Your task to perform on an android device: check storage Image 0: 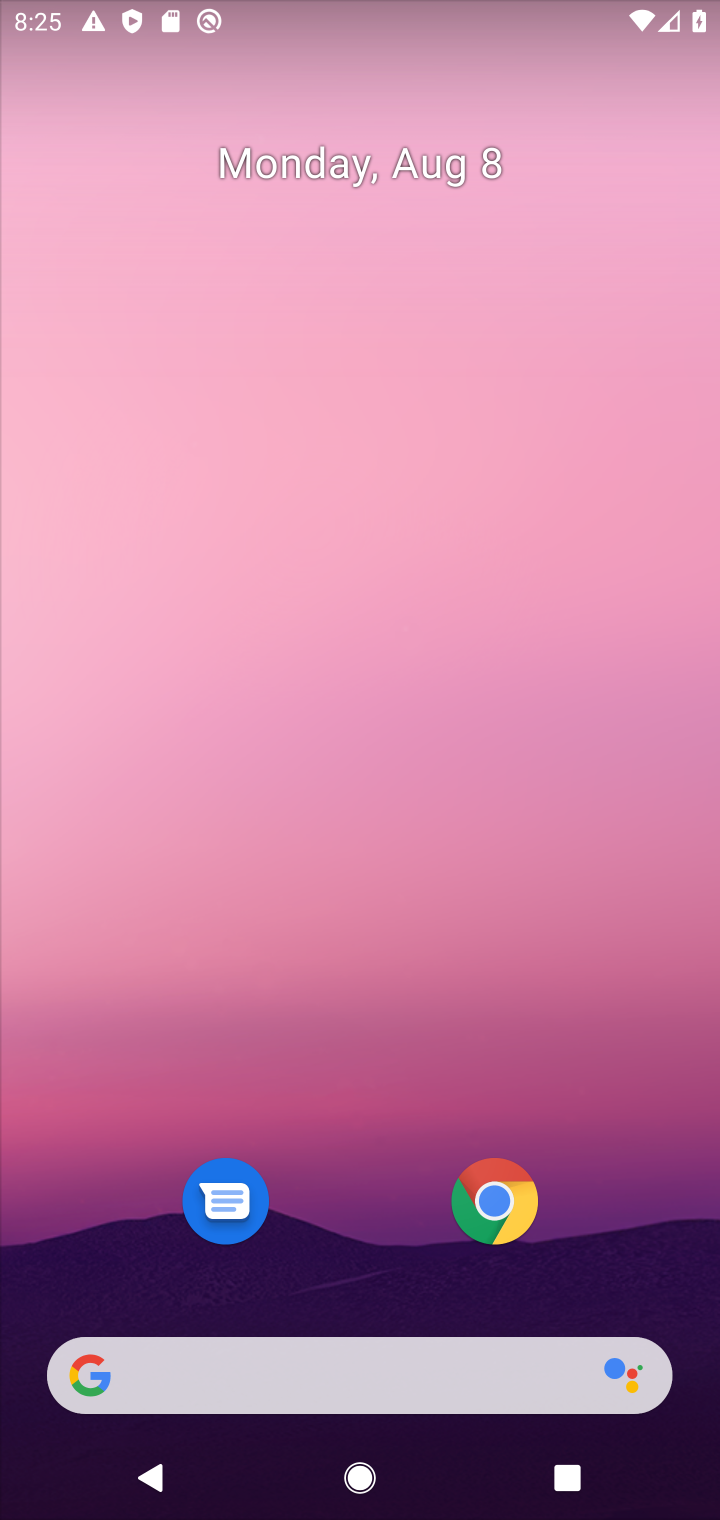
Step 0: press home button
Your task to perform on an android device: check storage Image 1: 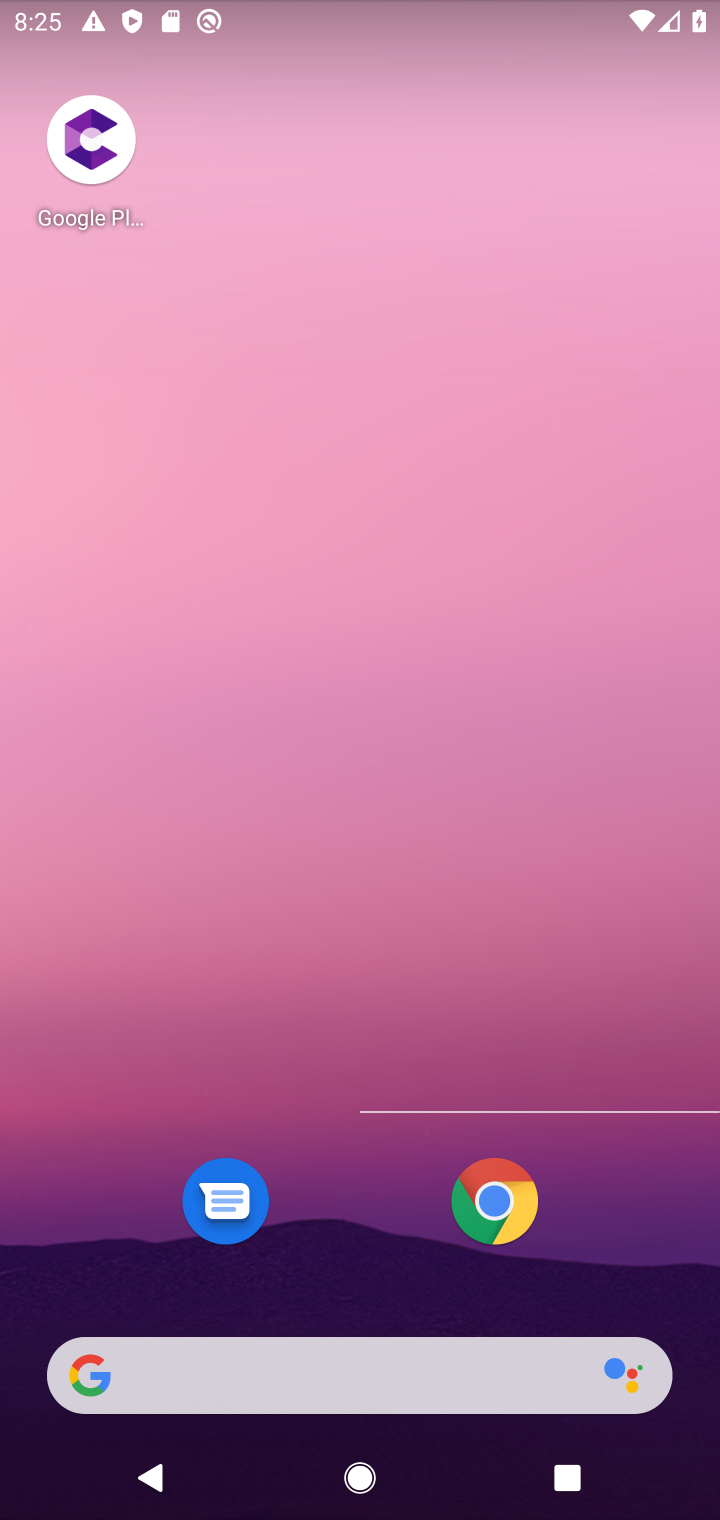
Step 1: drag from (362, 1217) to (440, 369)
Your task to perform on an android device: check storage Image 2: 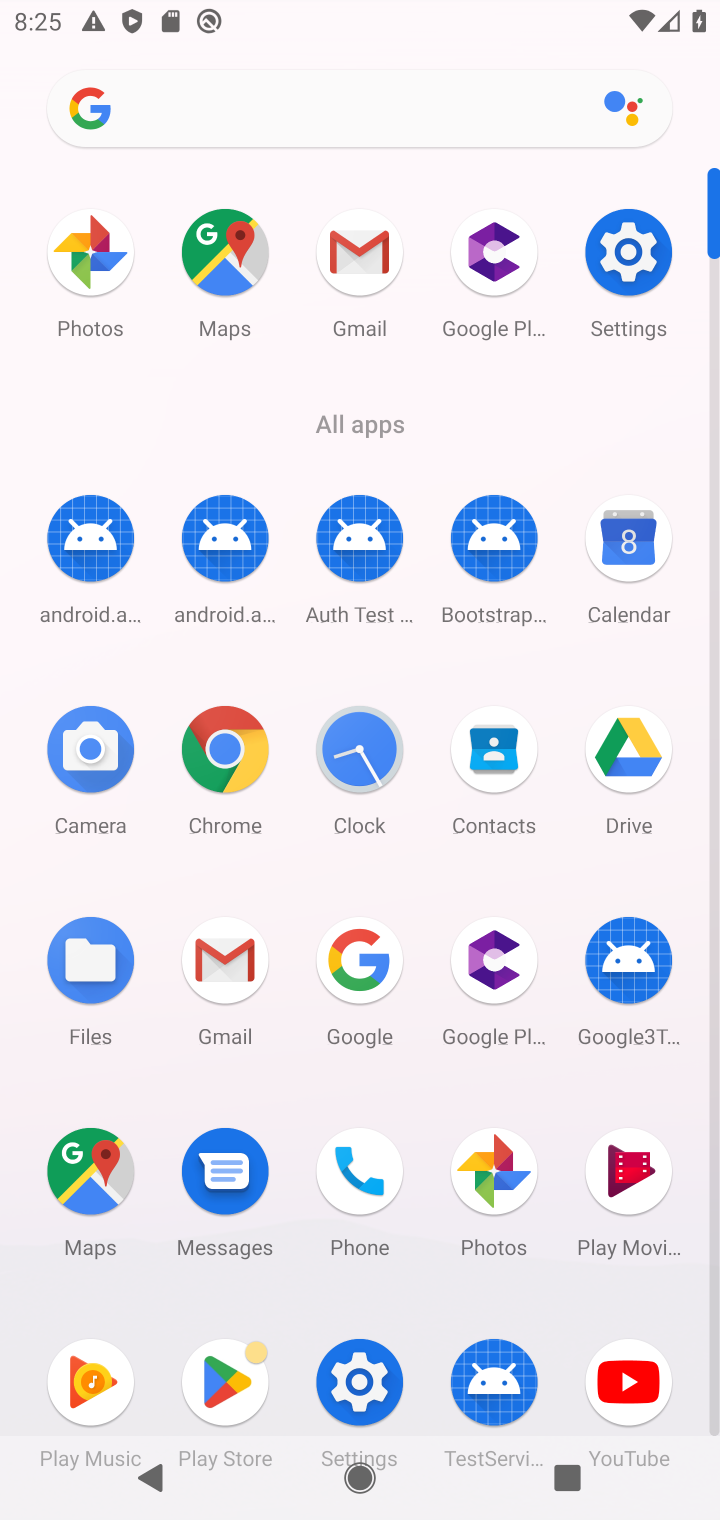
Step 2: click (628, 260)
Your task to perform on an android device: check storage Image 3: 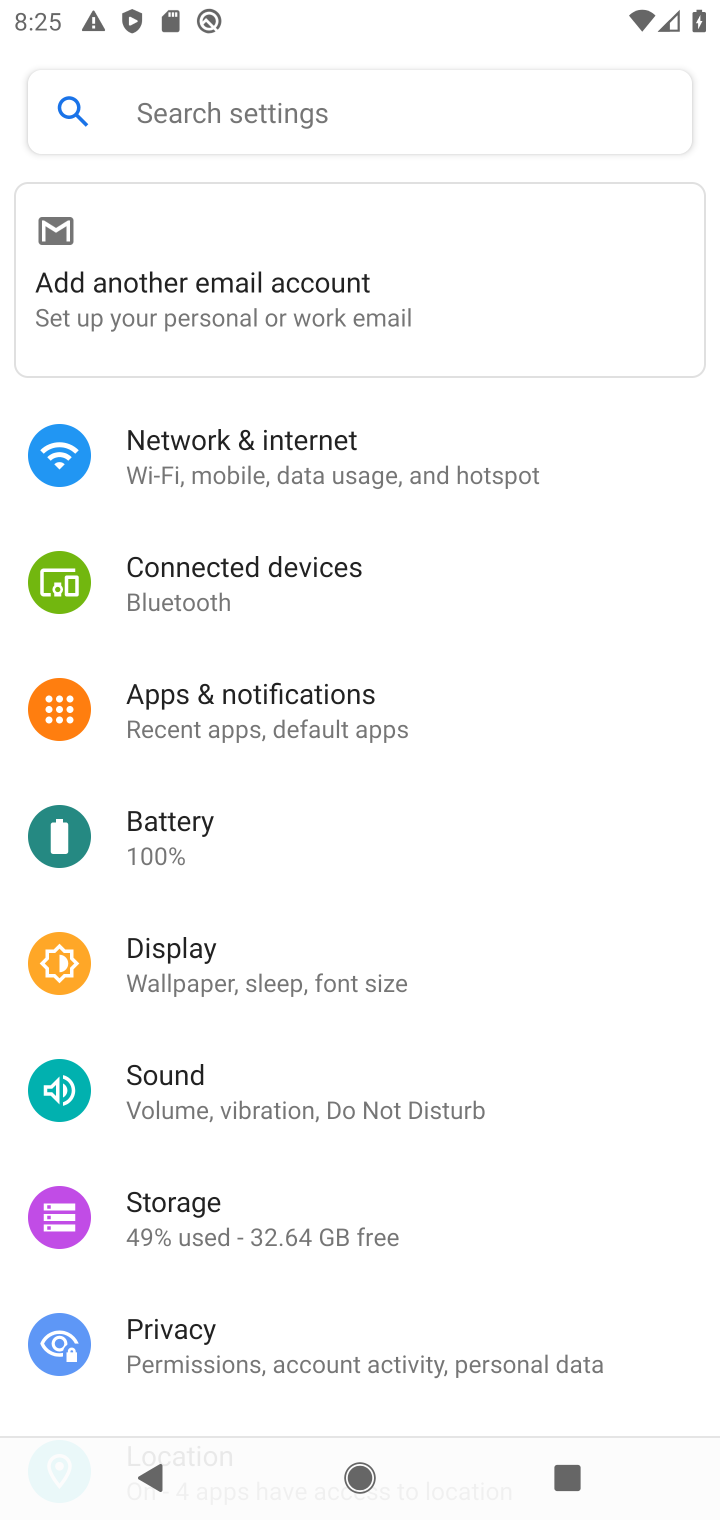
Step 3: drag from (613, 679) to (640, 553)
Your task to perform on an android device: check storage Image 4: 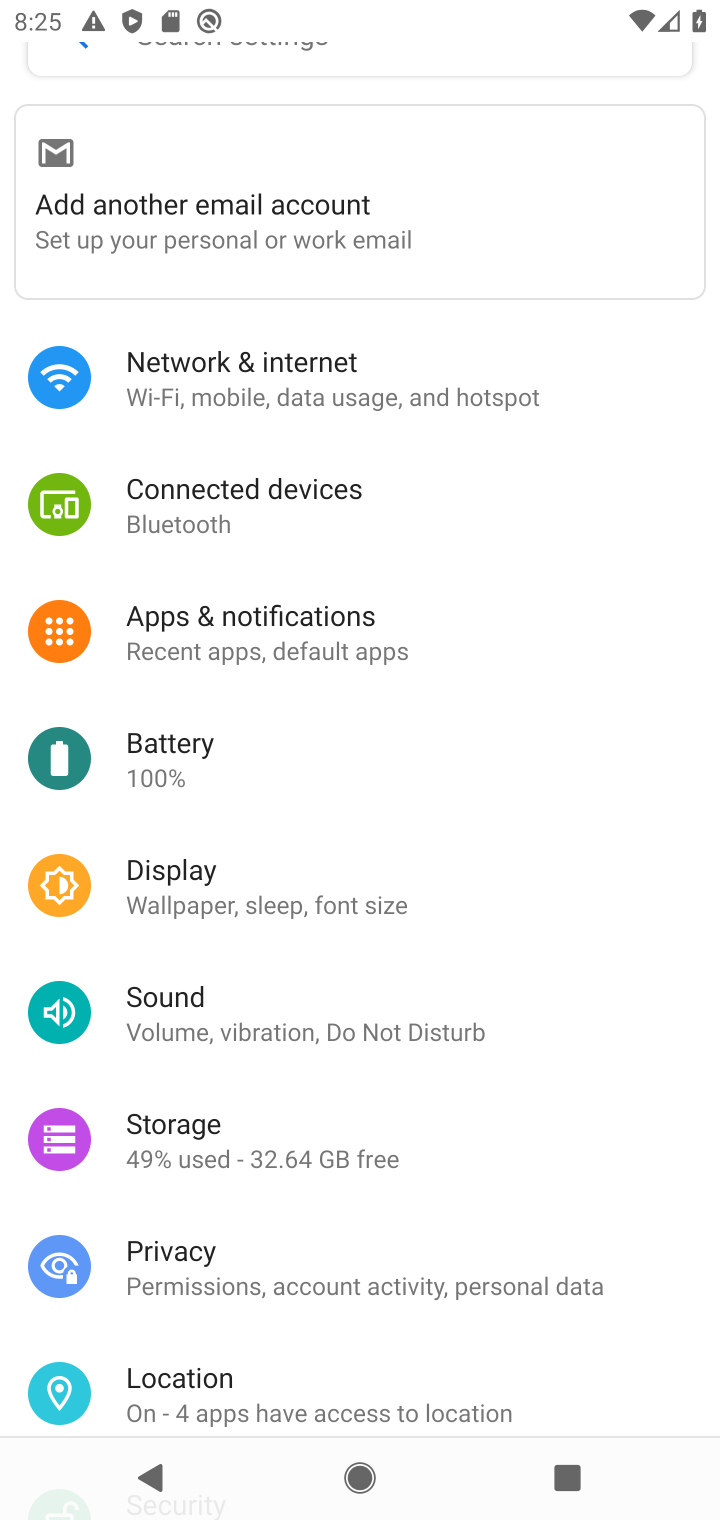
Step 4: drag from (610, 713) to (631, 561)
Your task to perform on an android device: check storage Image 5: 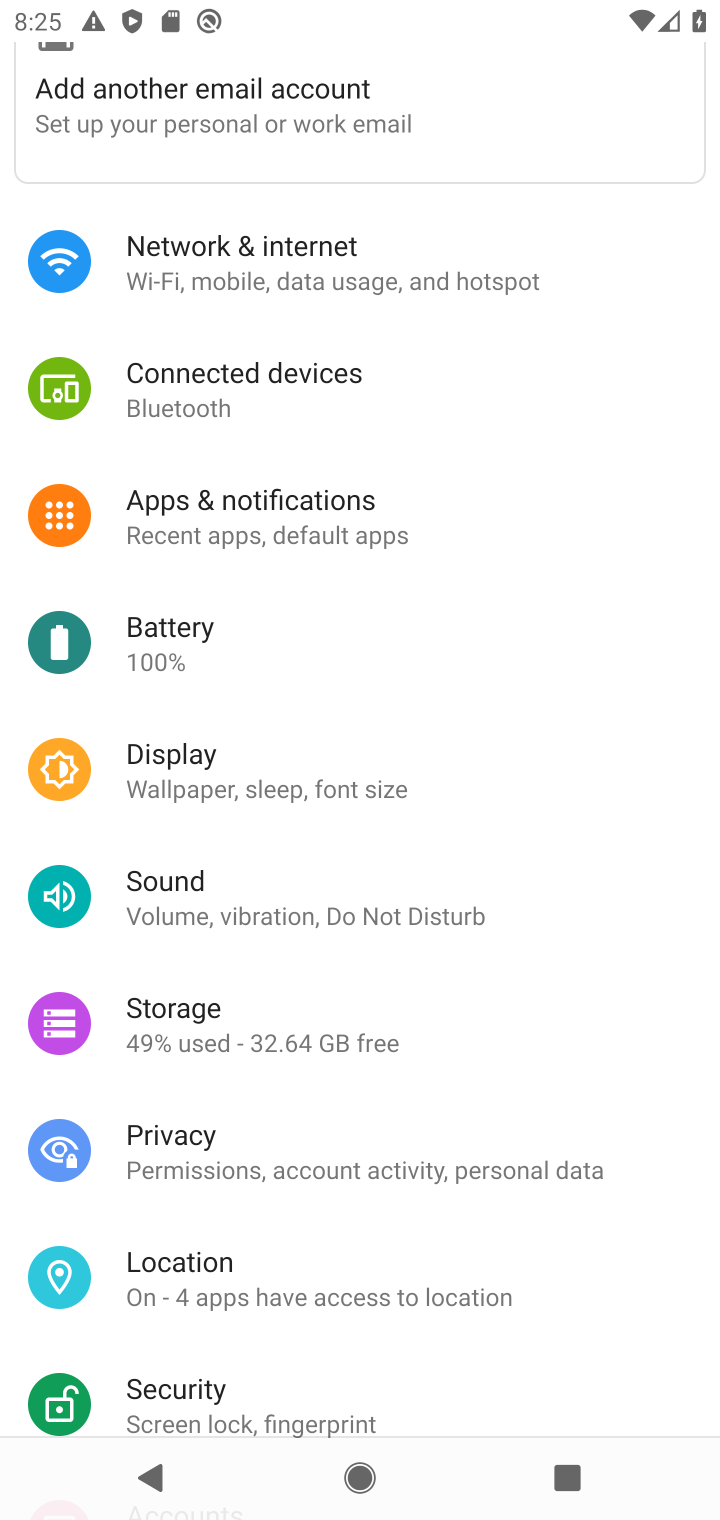
Step 5: drag from (598, 703) to (621, 520)
Your task to perform on an android device: check storage Image 6: 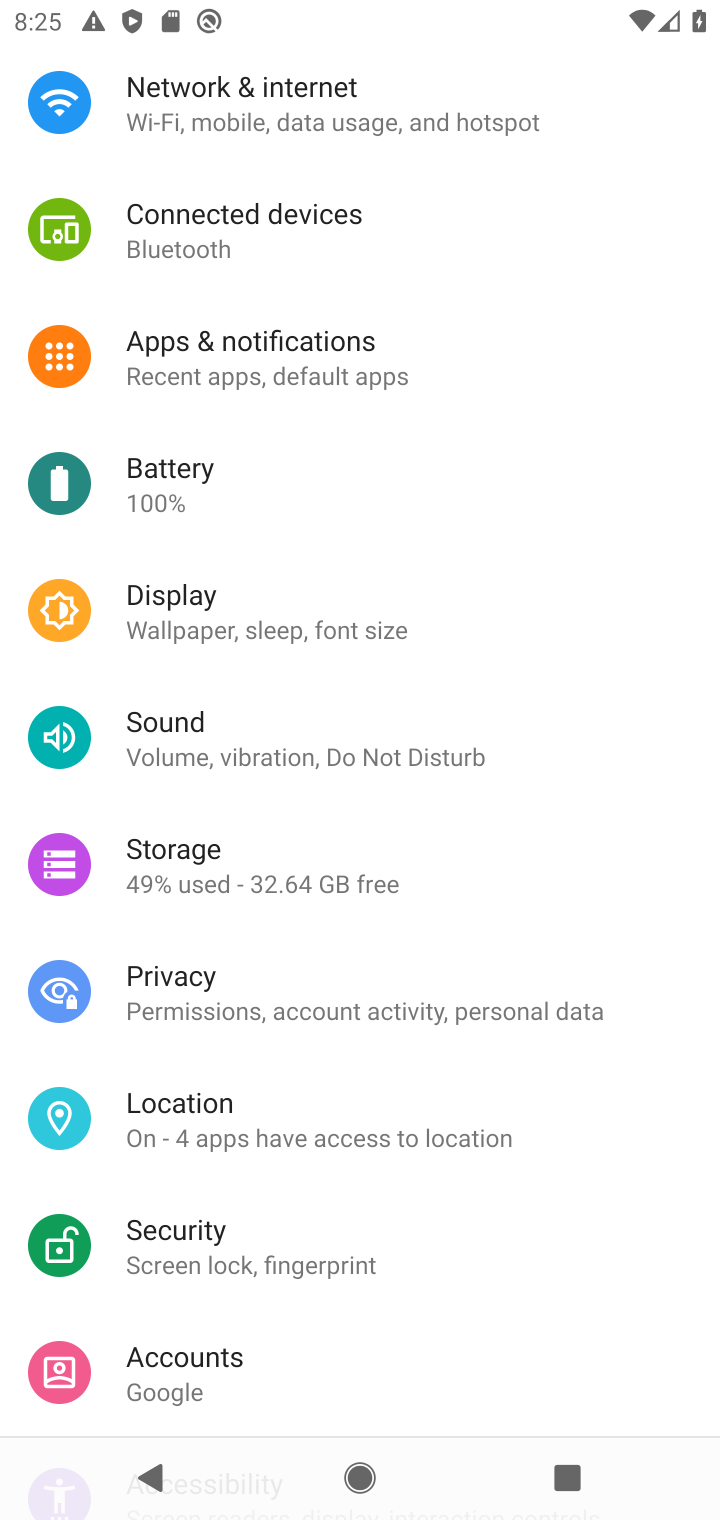
Step 6: drag from (594, 648) to (602, 497)
Your task to perform on an android device: check storage Image 7: 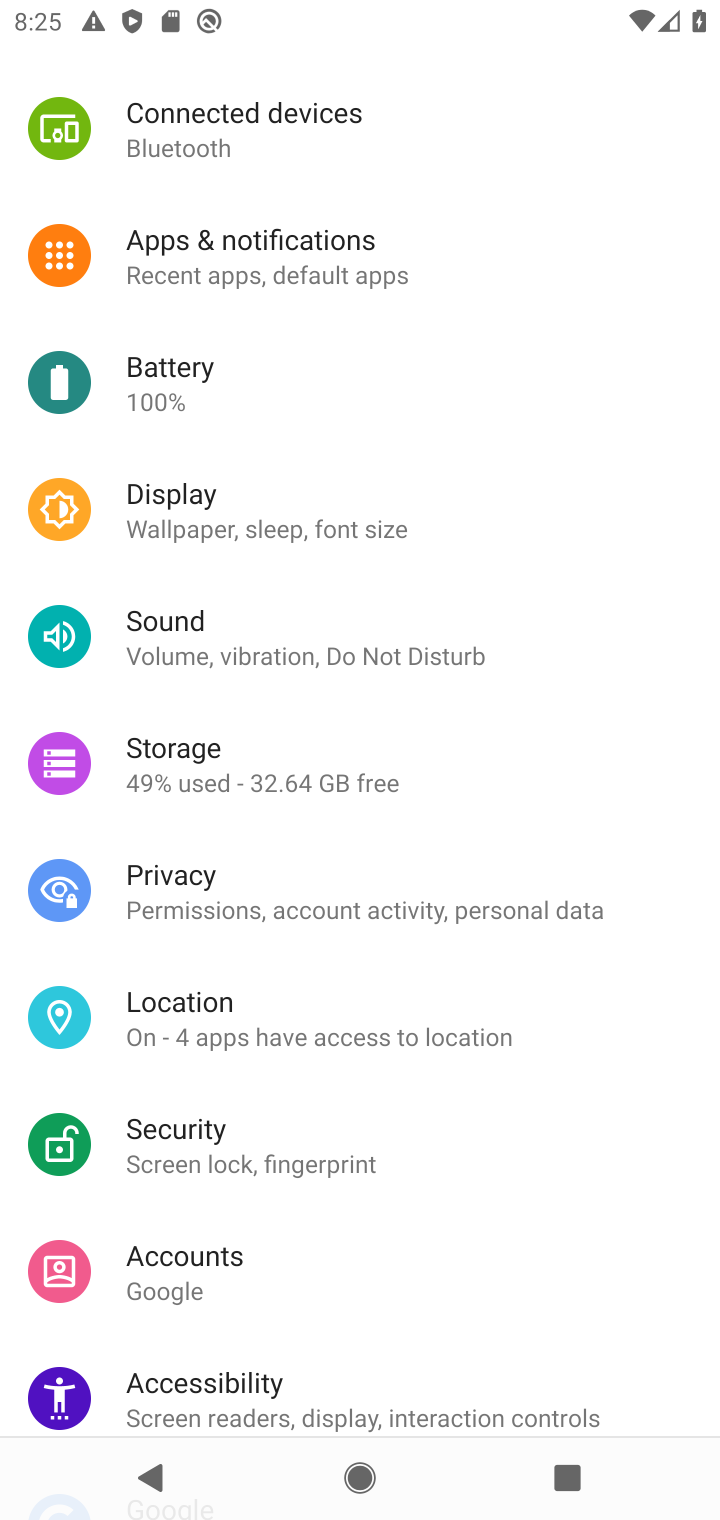
Step 7: drag from (570, 726) to (609, 402)
Your task to perform on an android device: check storage Image 8: 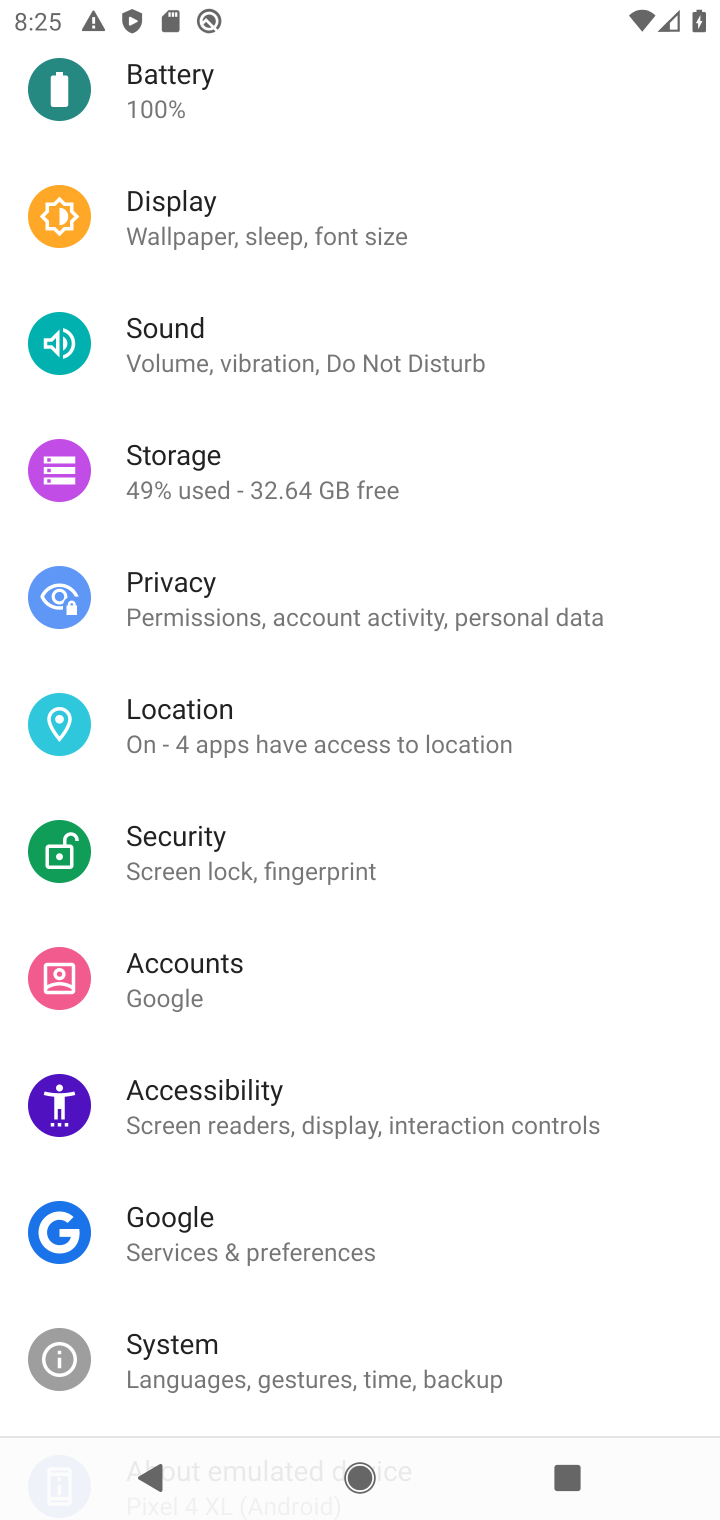
Step 8: drag from (572, 748) to (591, 438)
Your task to perform on an android device: check storage Image 9: 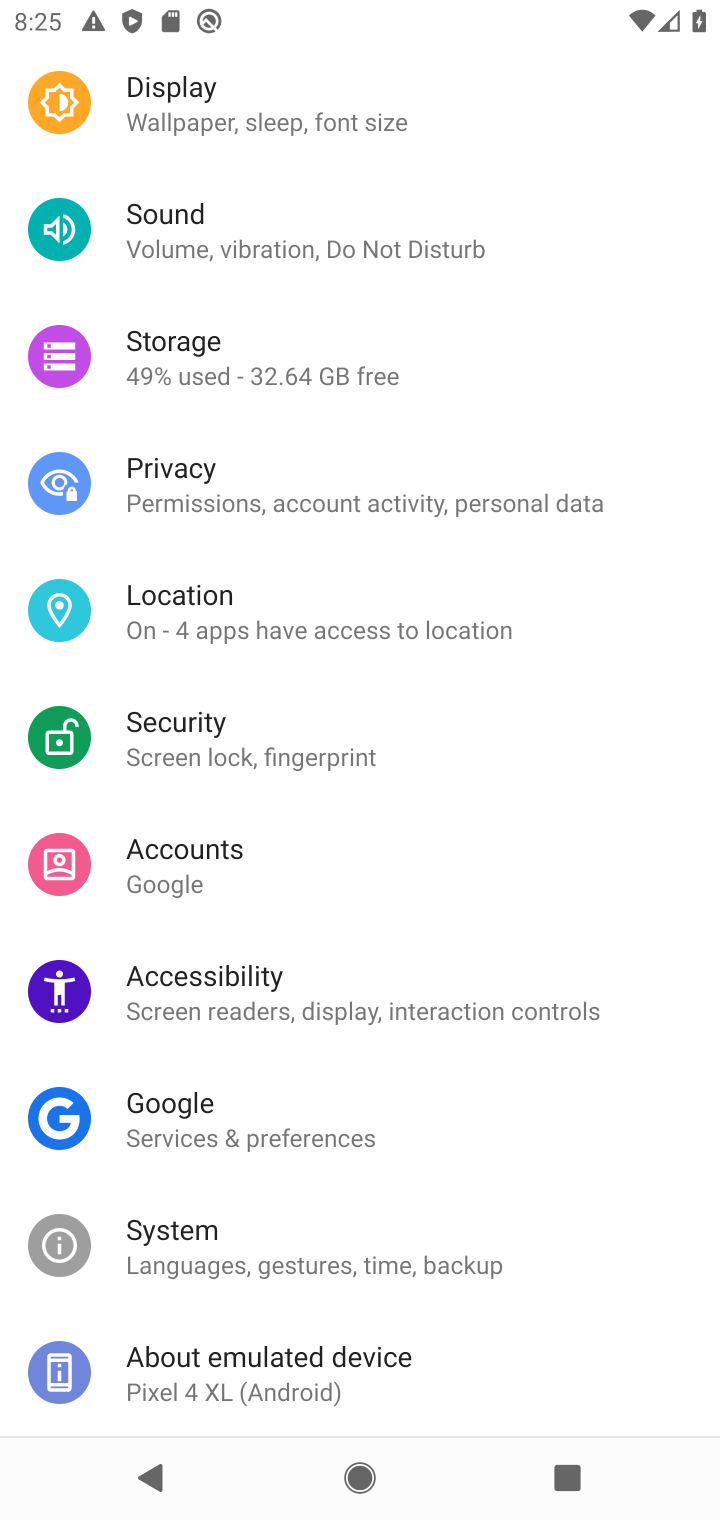
Step 9: click (399, 365)
Your task to perform on an android device: check storage Image 10: 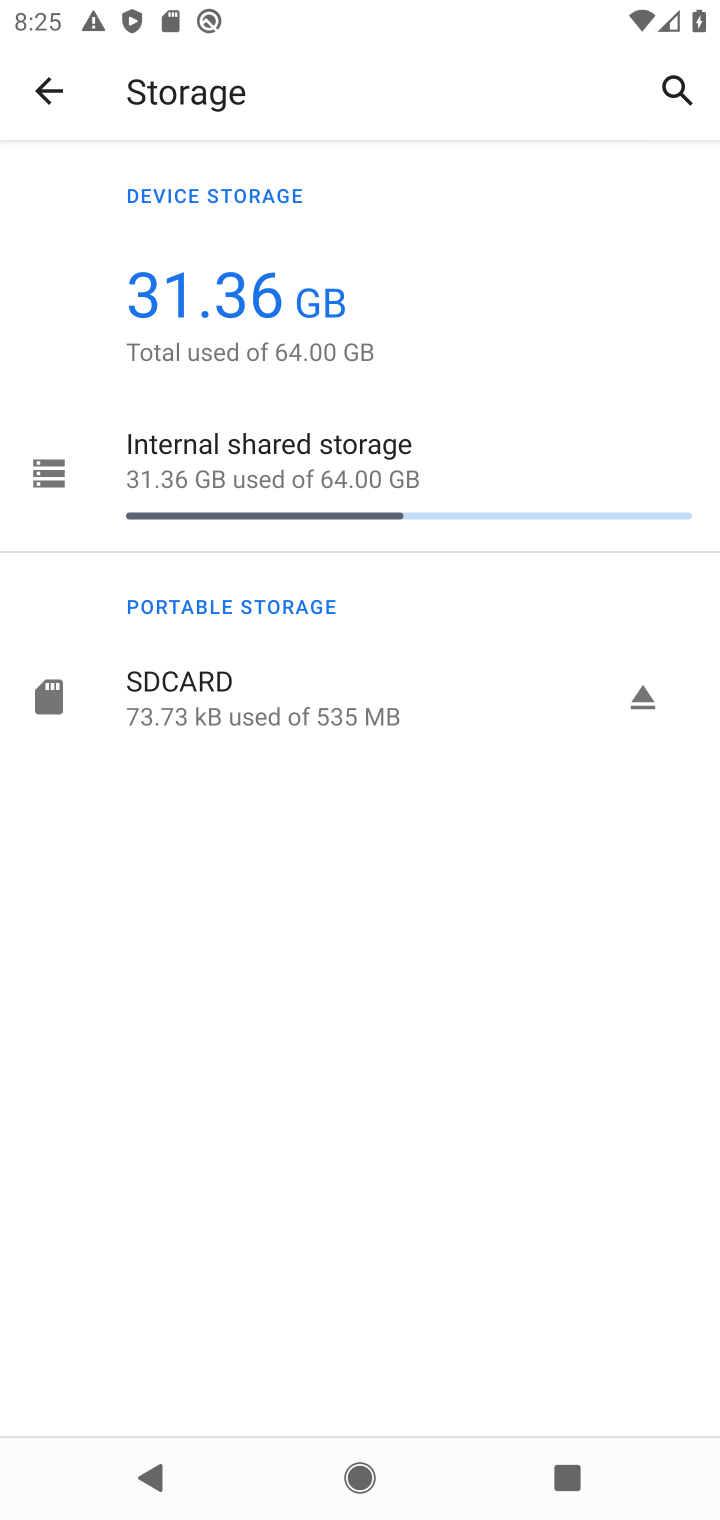
Step 10: task complete